Your task to perform on an android device: What's the news in India? Image 0: 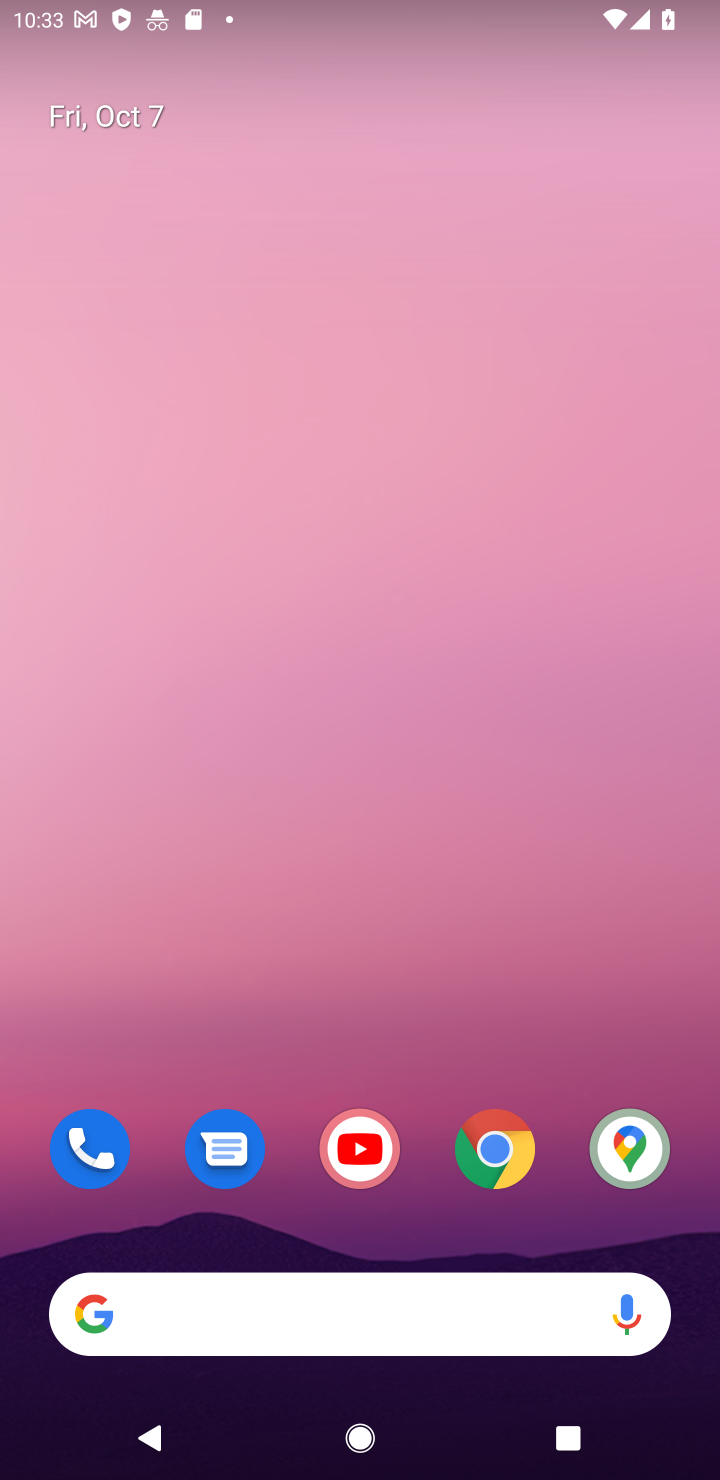
Step 0: click (232, 1304)
Your task to perform on an android device: What's the news in India? Image 1: 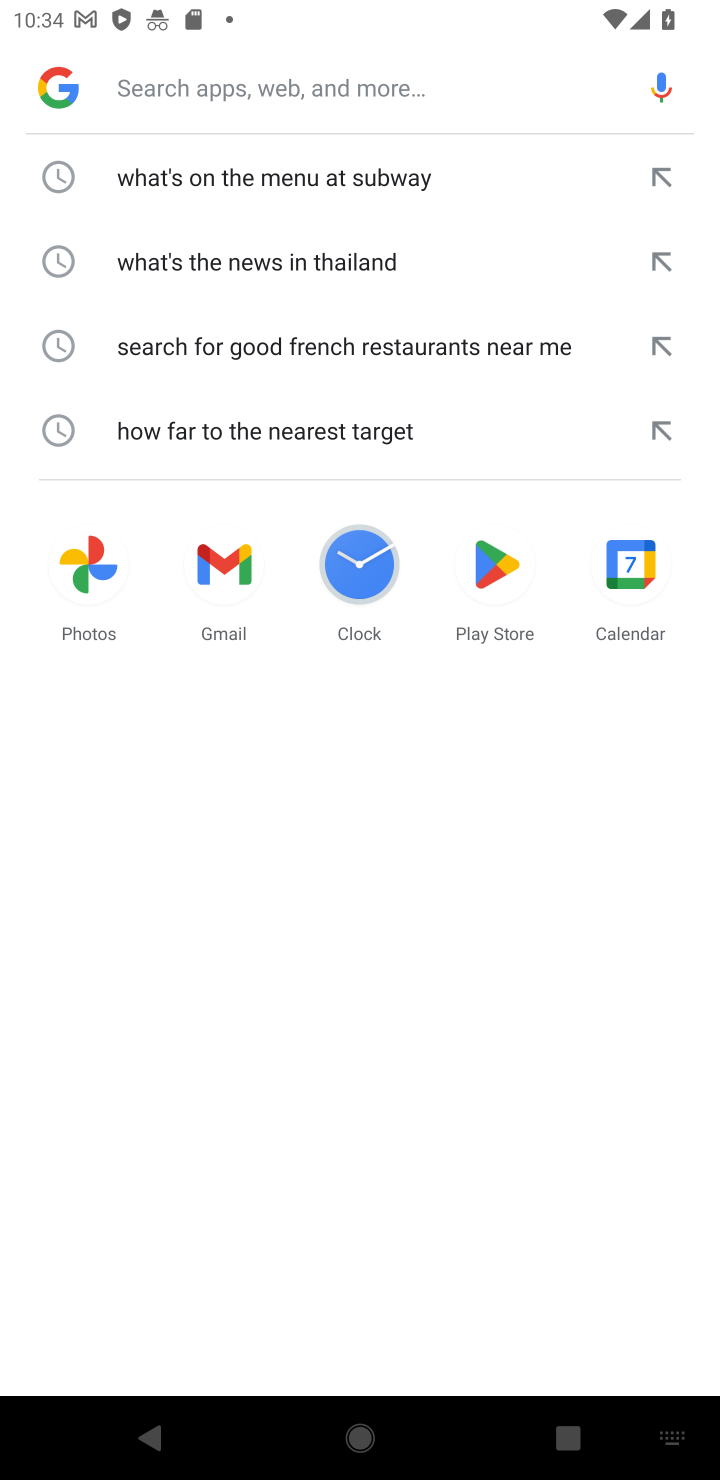
Step 1: type "What's the news in India?"
Your task to perform on an android device: What's the news in India? Image 2: 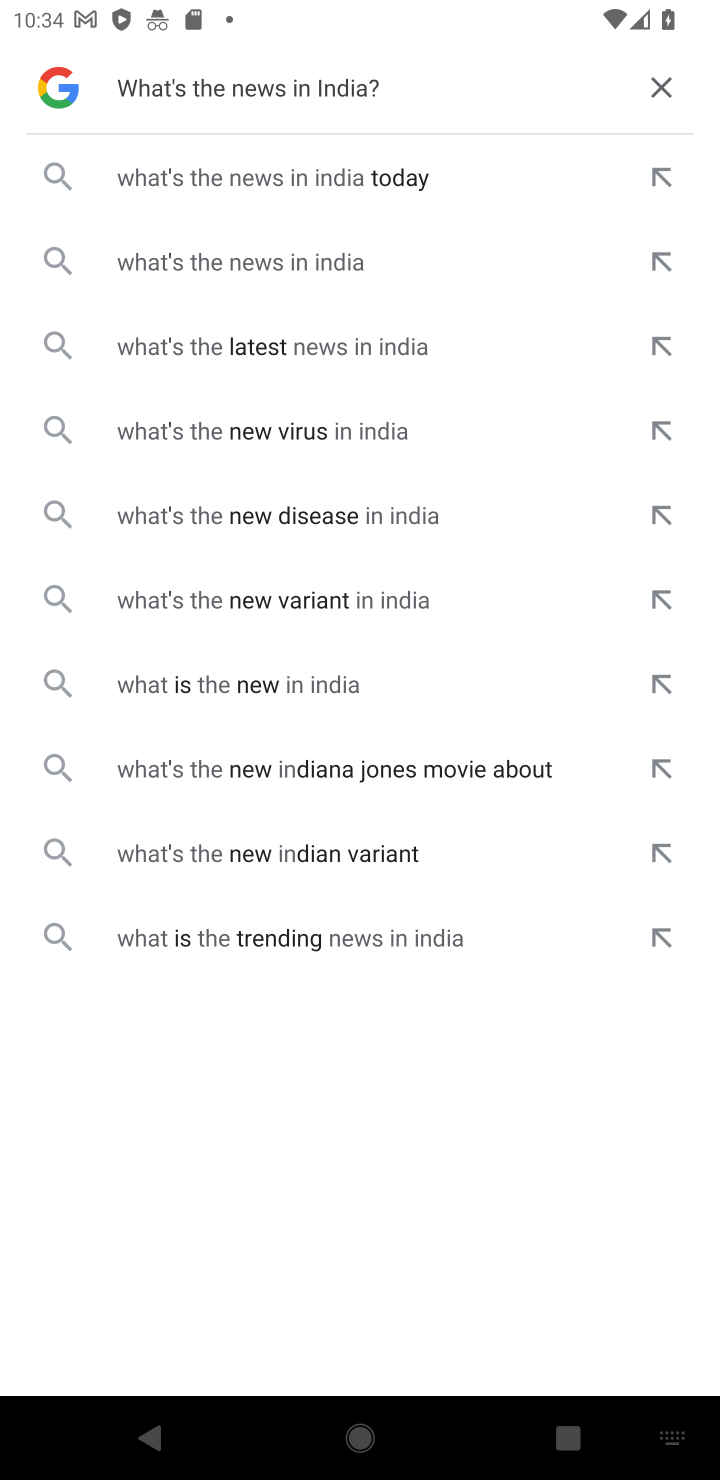
Step 2: click (439, 155)
Your task to perform on an android device: What's the news in India? Image 3: 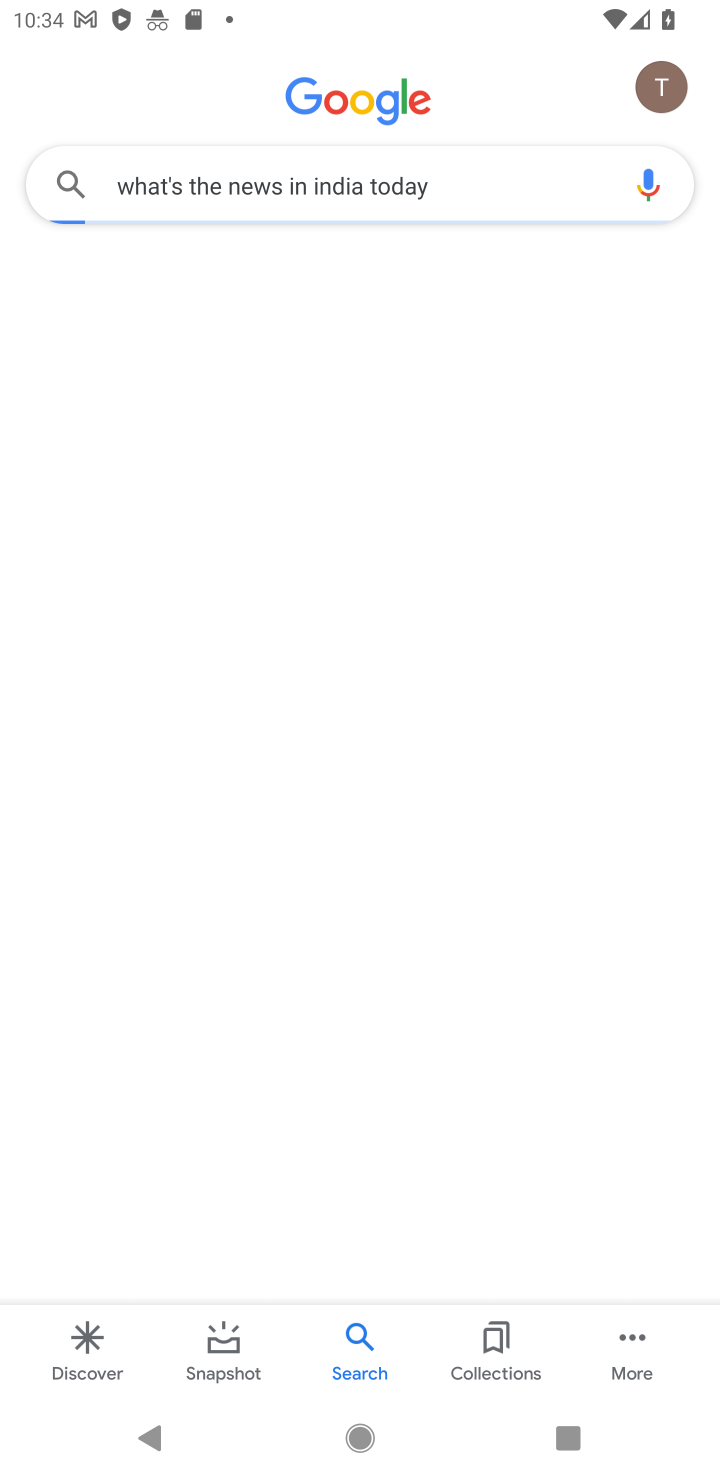
Step 3: task complete